Your task to perform on an android device: toggle airplane mode Image 0: 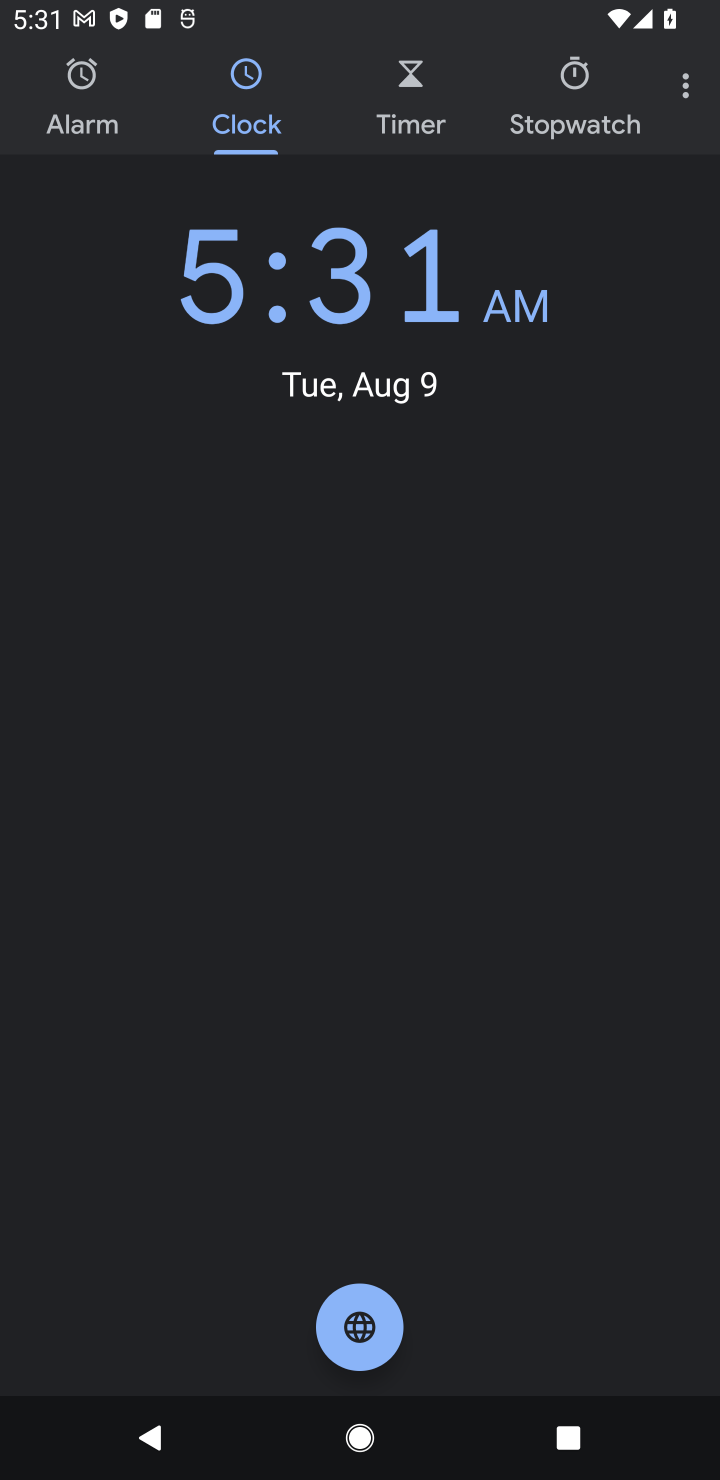
Step 0: press home button
Your task to perform on an android device: toggle airplane mode Image 1: 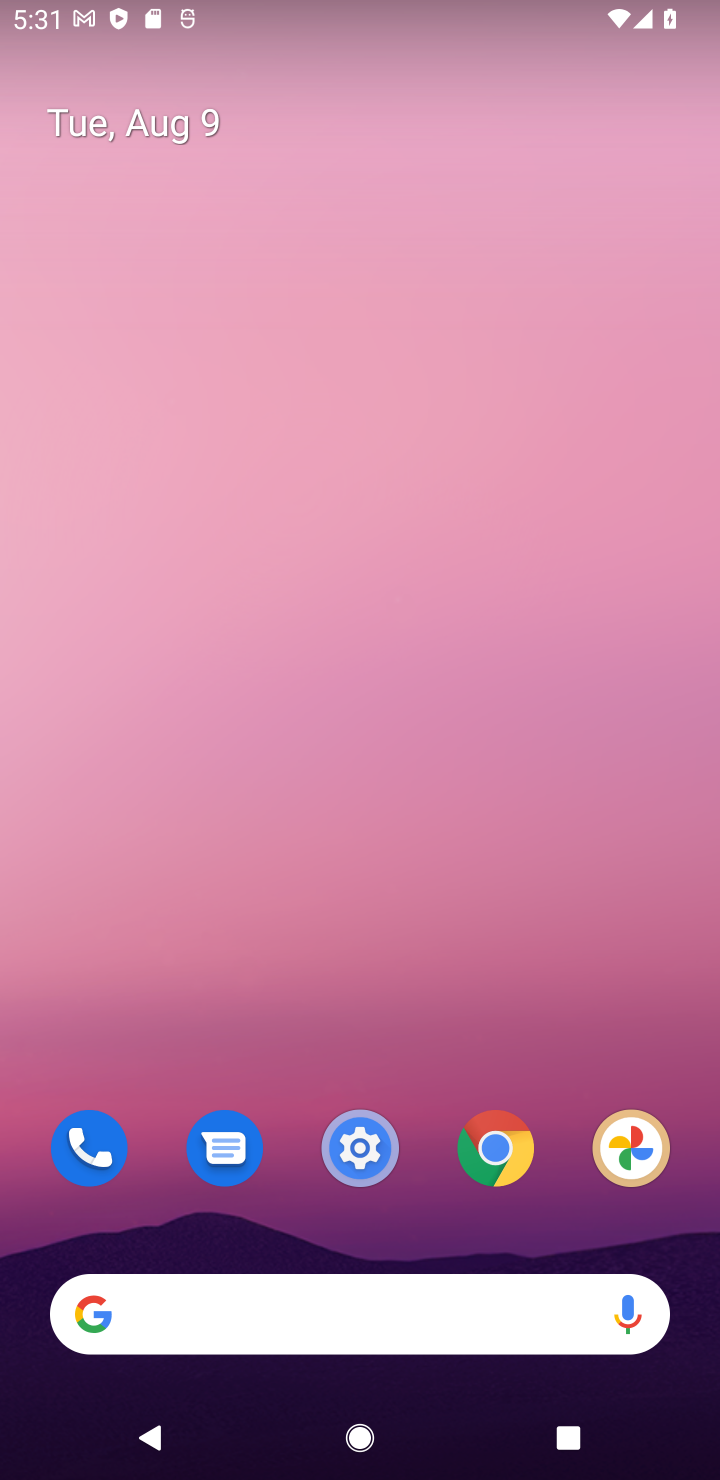
Step 1: click (374, 1137)
Your task to perform on an android device: toggle airplane mode Image 2: 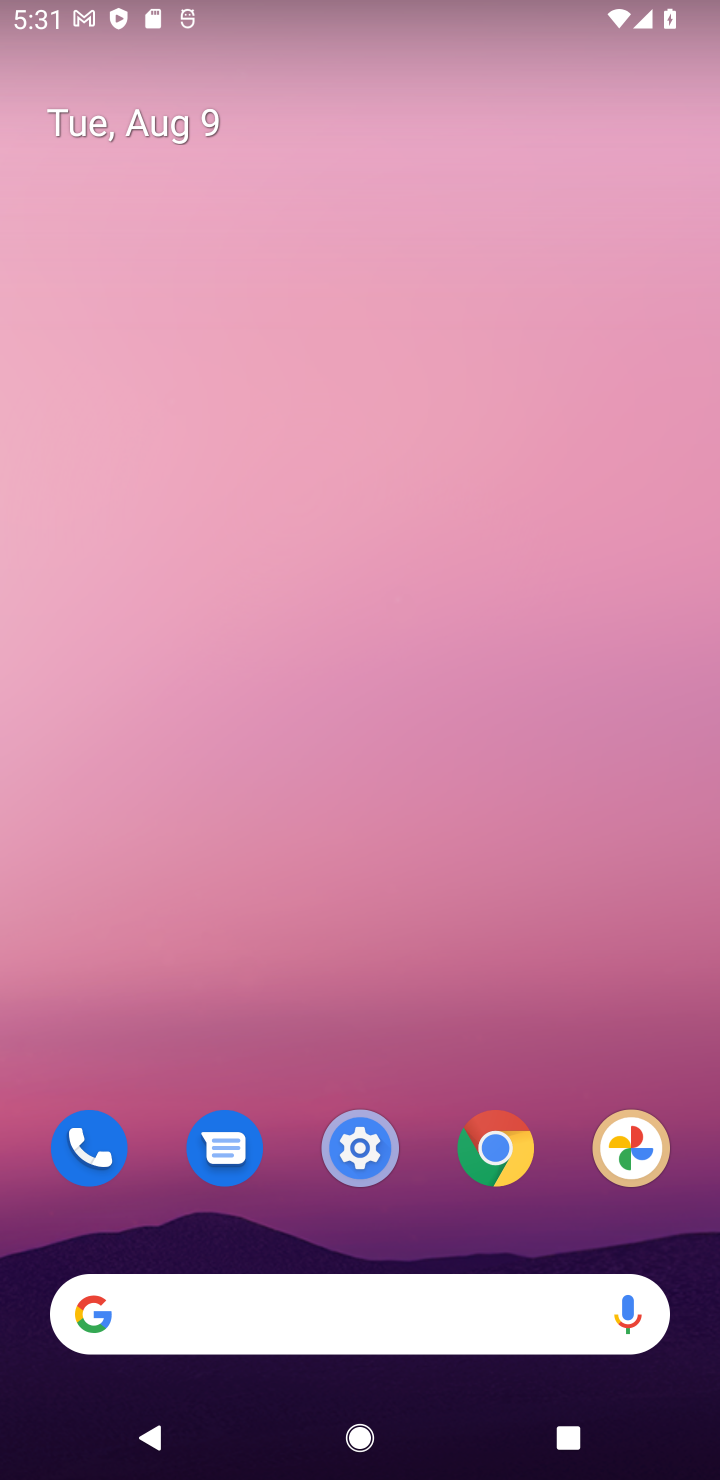
Step 2: click (347, 1166)
Your task to perform on an android device: toggle airplane mode Image 3: 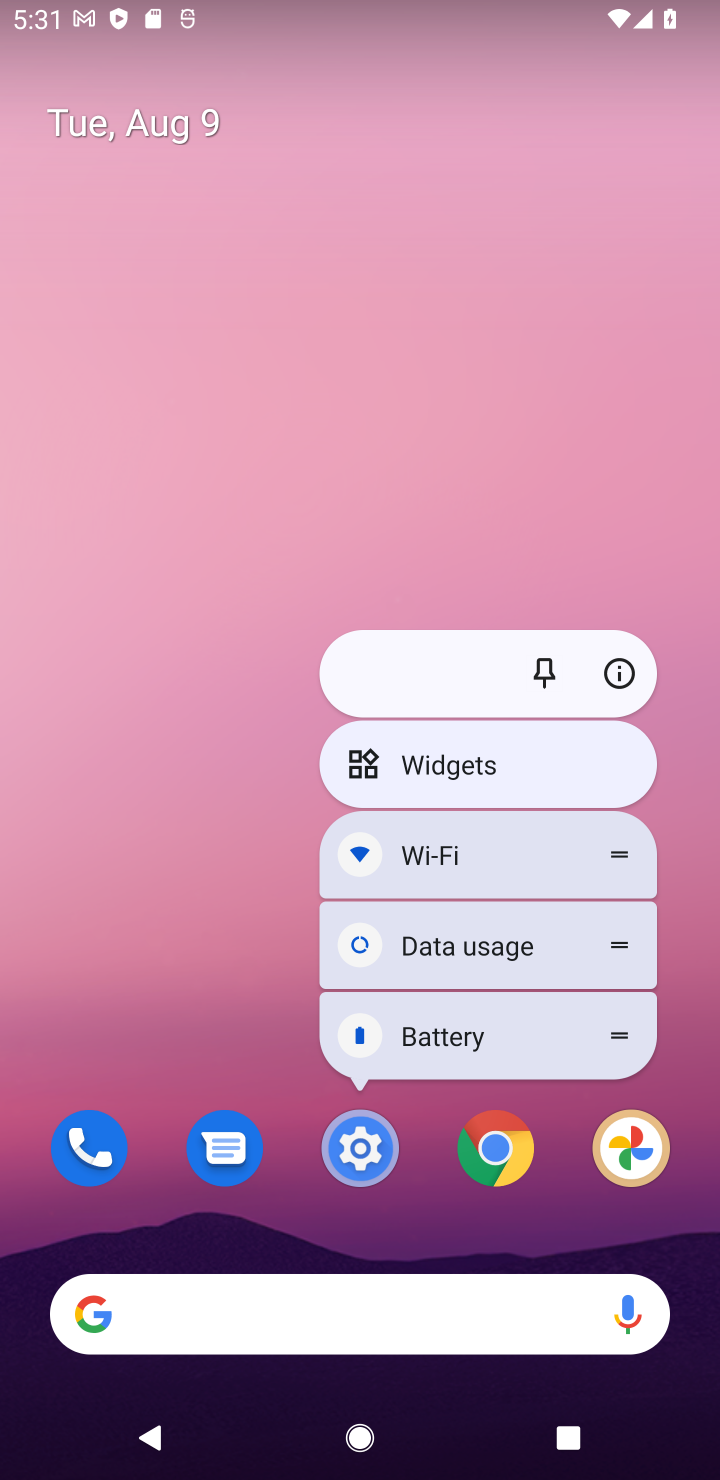
Step 3: click (355, 1178)
Your task to perform on an android device: toggle airplane mode Image 4: 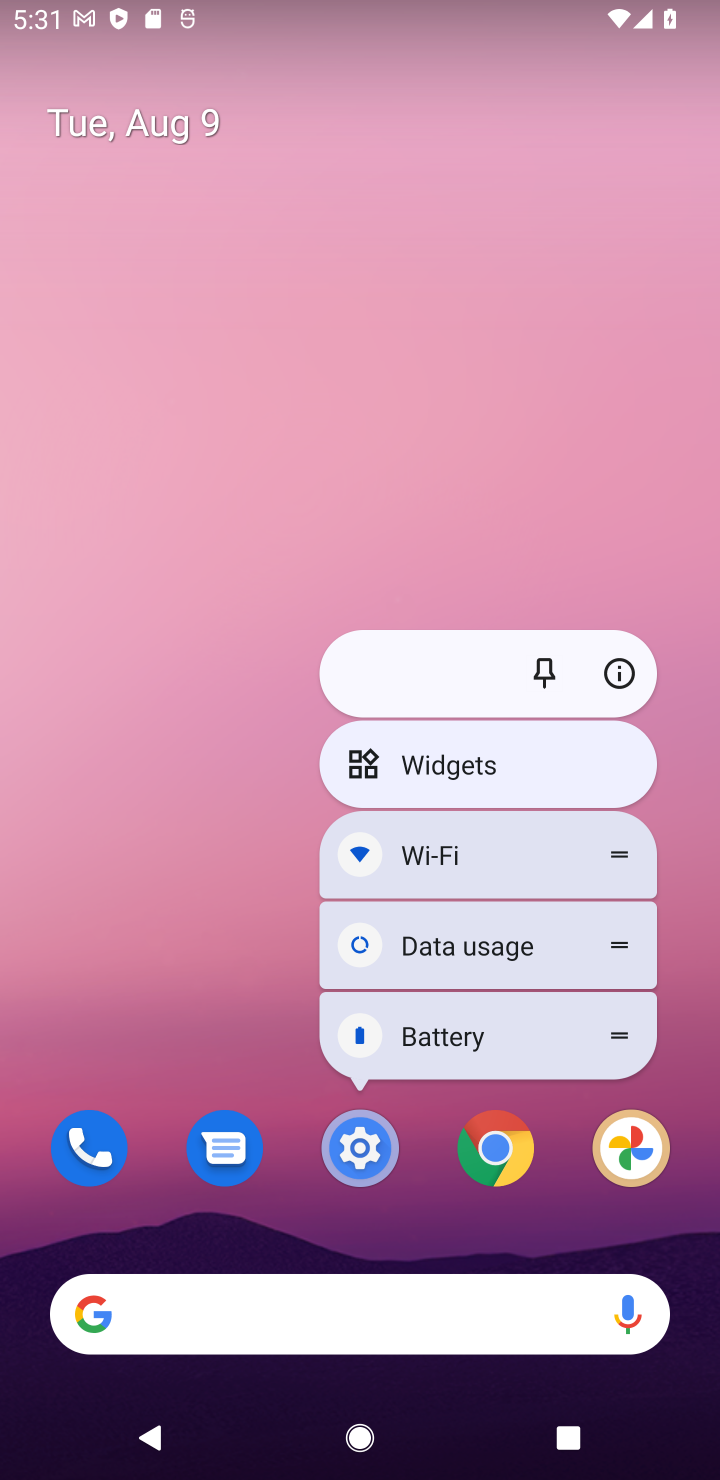
Step 4: drag from (323, 1206) to (402, 64)
Your task to perform on an android device: toggle airplane mode Image 5: 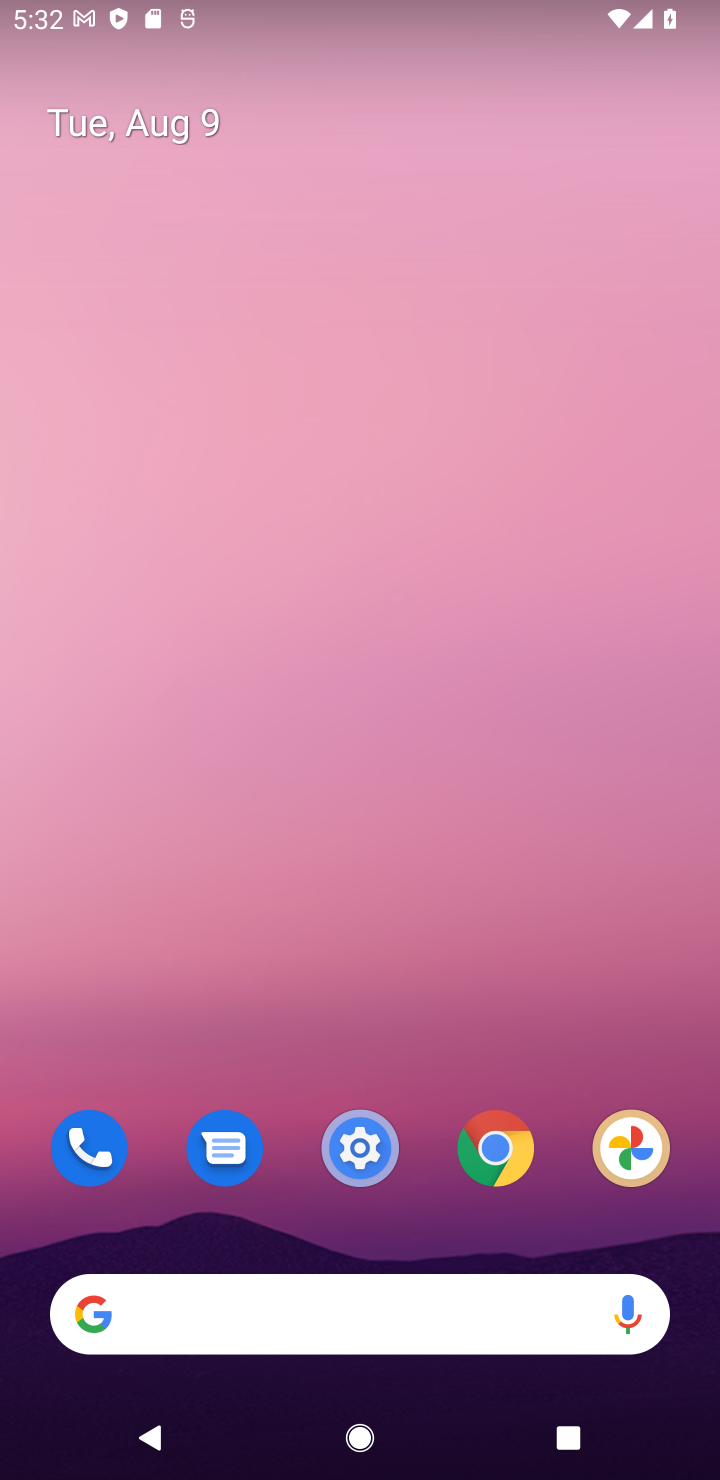
Step 5: drag from (291, 991) to (379, 10)
Your task to perform on an android device: toggle airplane mode Image 6: 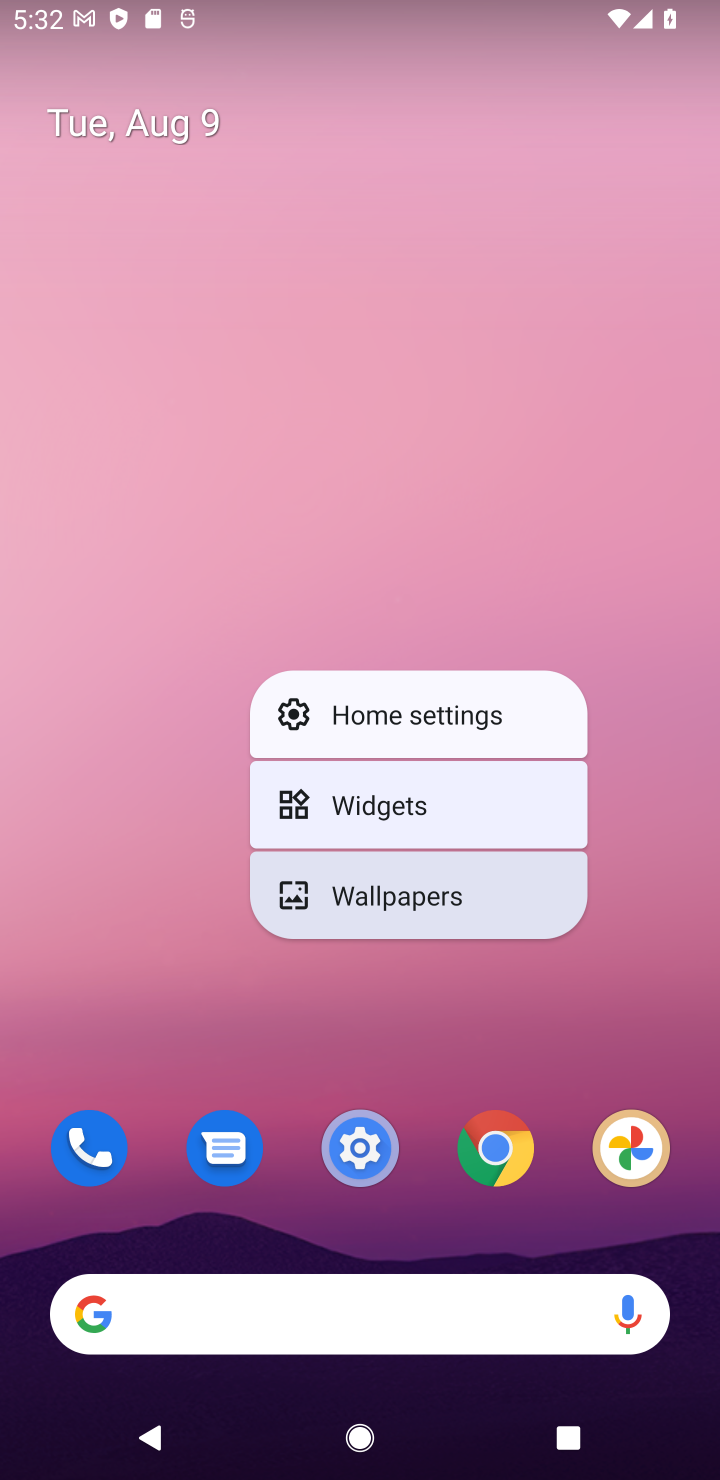
Step 6: click (299, 1013)
Your task to perform on an android device: toggle airplane mode Image 7: 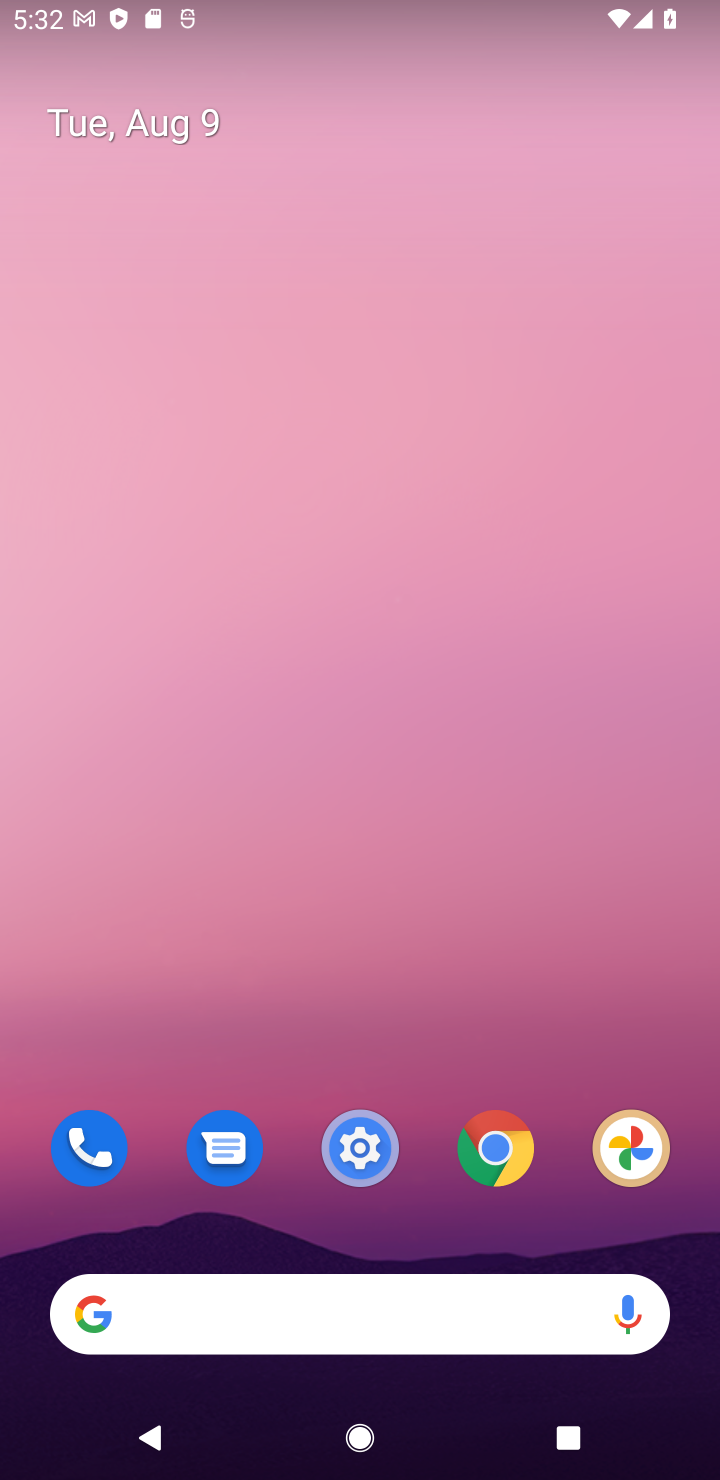
Step 7: drag from (311, 680) to (346, 69)
Your task to perform on an android device: toggle airplane mode Image 8: 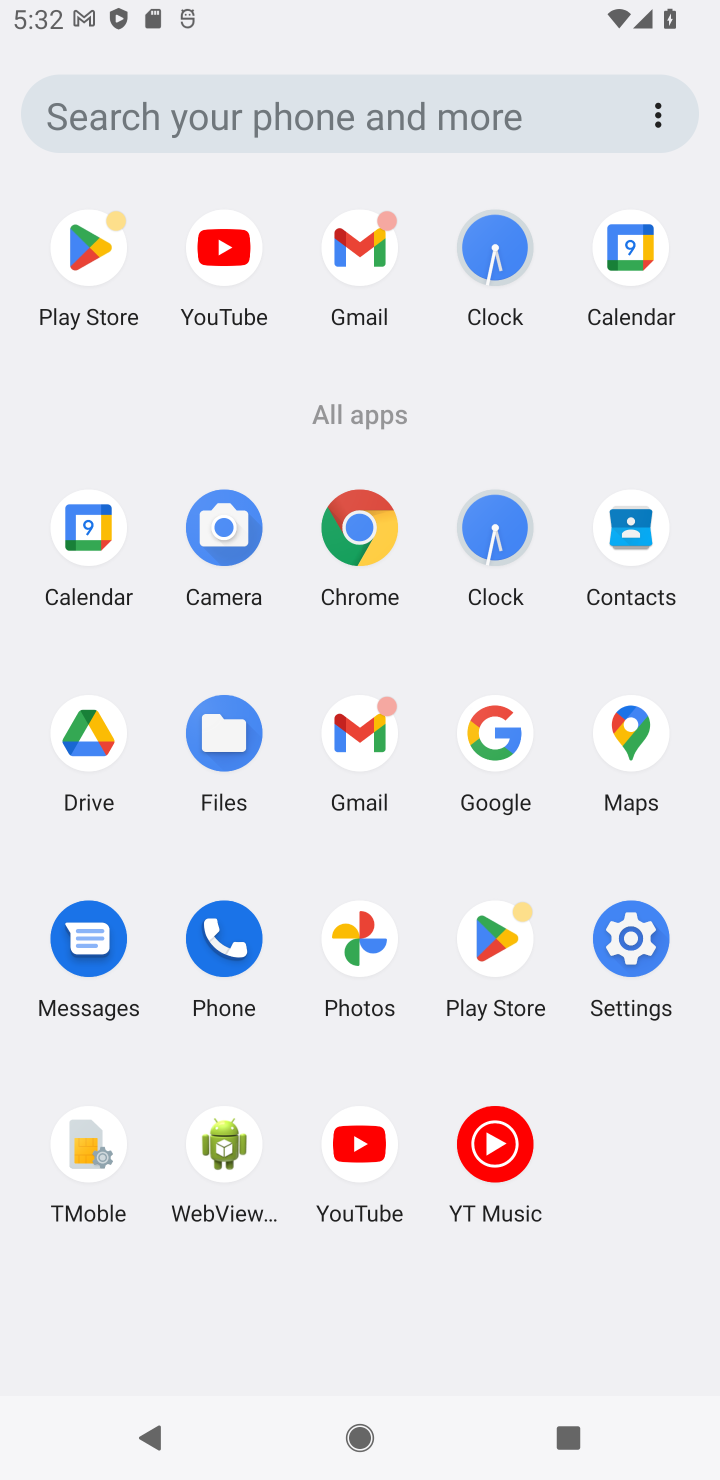
Step 8: click (623, 955)
Your task to perform on an android device: toggle airplane mode Image 9: 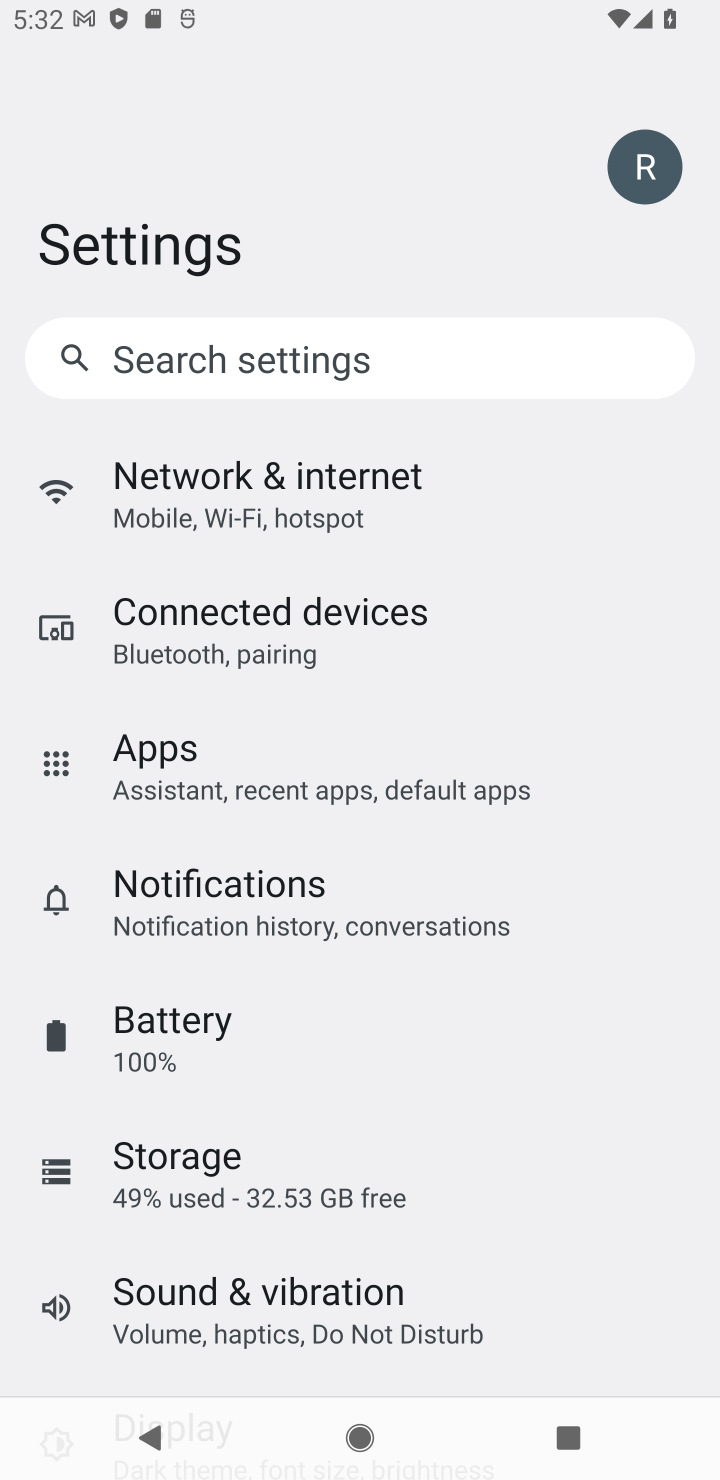
Step 9: click (313, 492)
Your task to perform on an android device: toggle airplane mode Image 10: 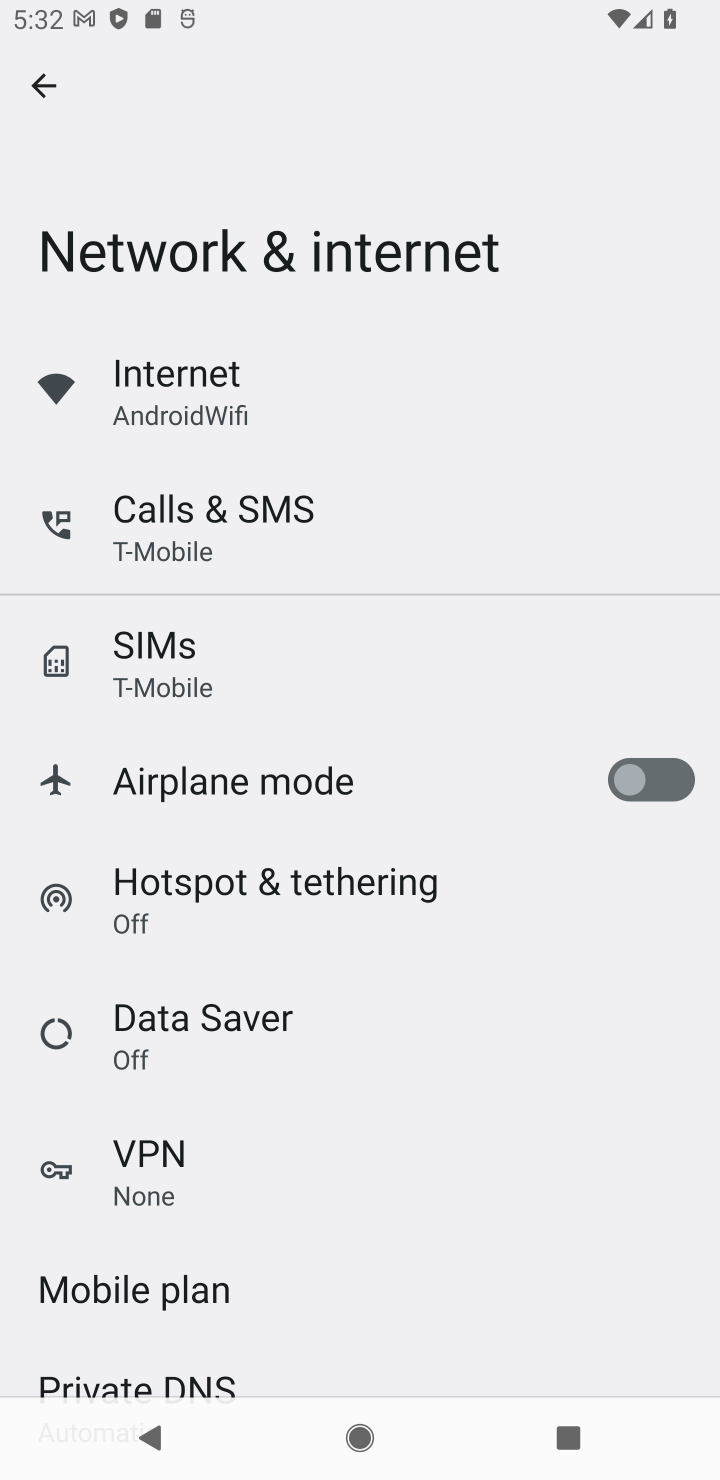
Step 10: click (676, 780)
Your task to perform on an android device: toggle airplane mode Image 11: 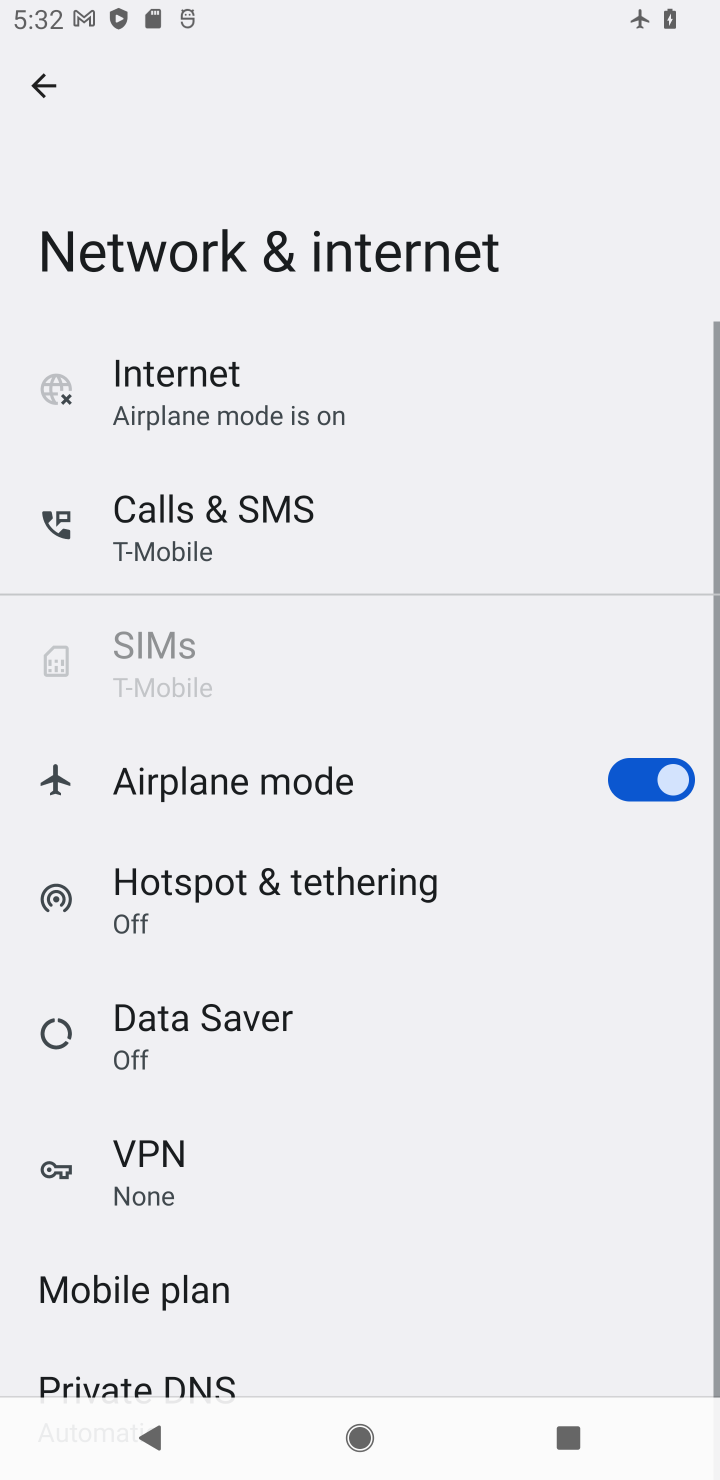
Step 11: task complete